Your task to perform on an android device: Go to Amazon Image 0: 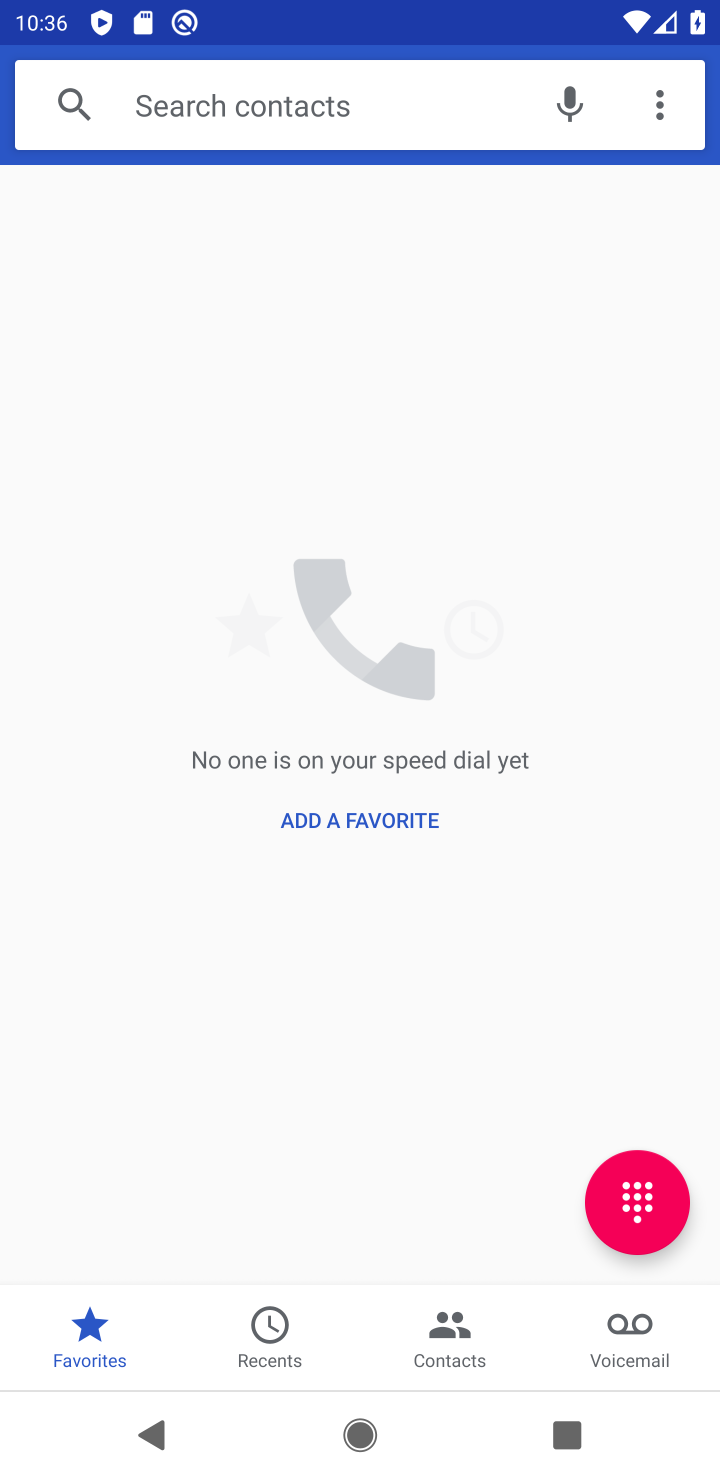
Step 0: press home button
Your task to perform on an android device: Go to Amazon Image 1: 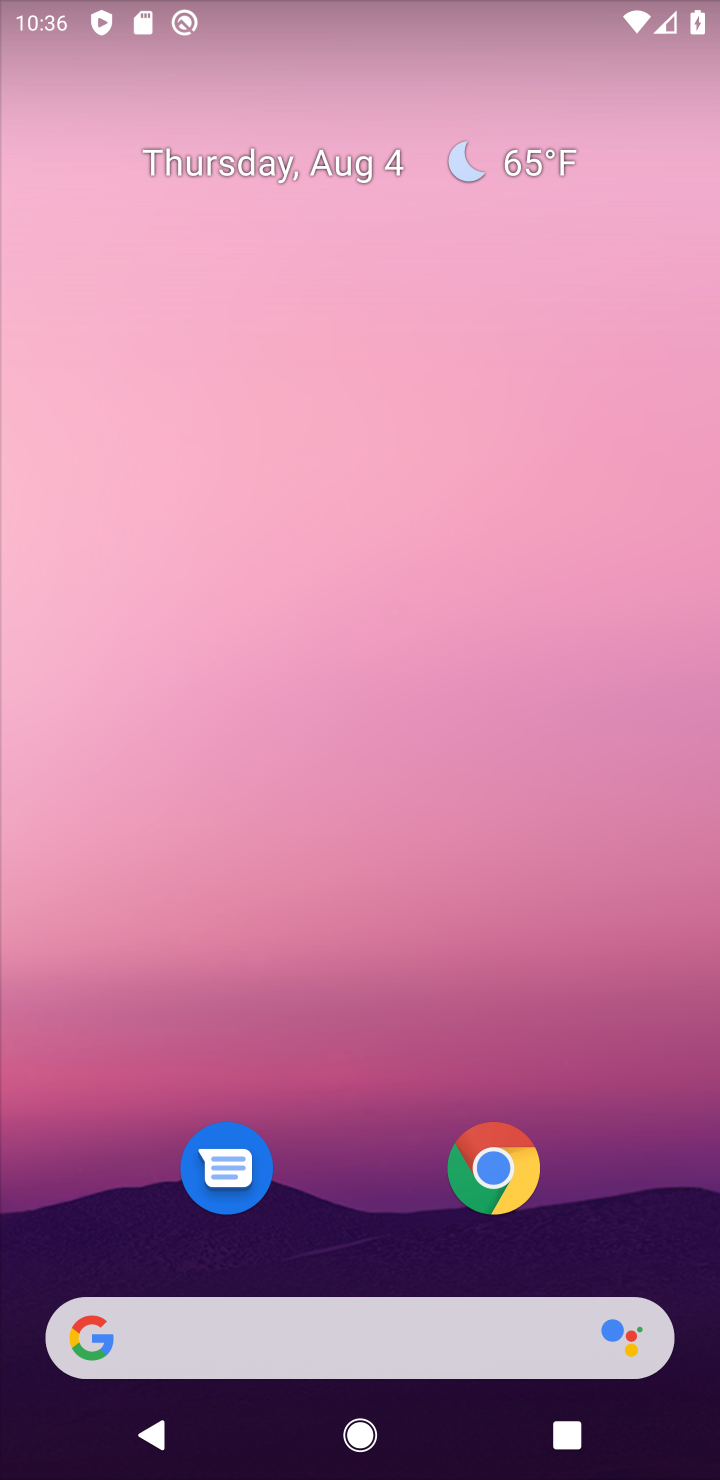
Step 1: drag from (644, 1142) to (483, 30)
Your task to perform on an android device: Go to Amazon Image 2: 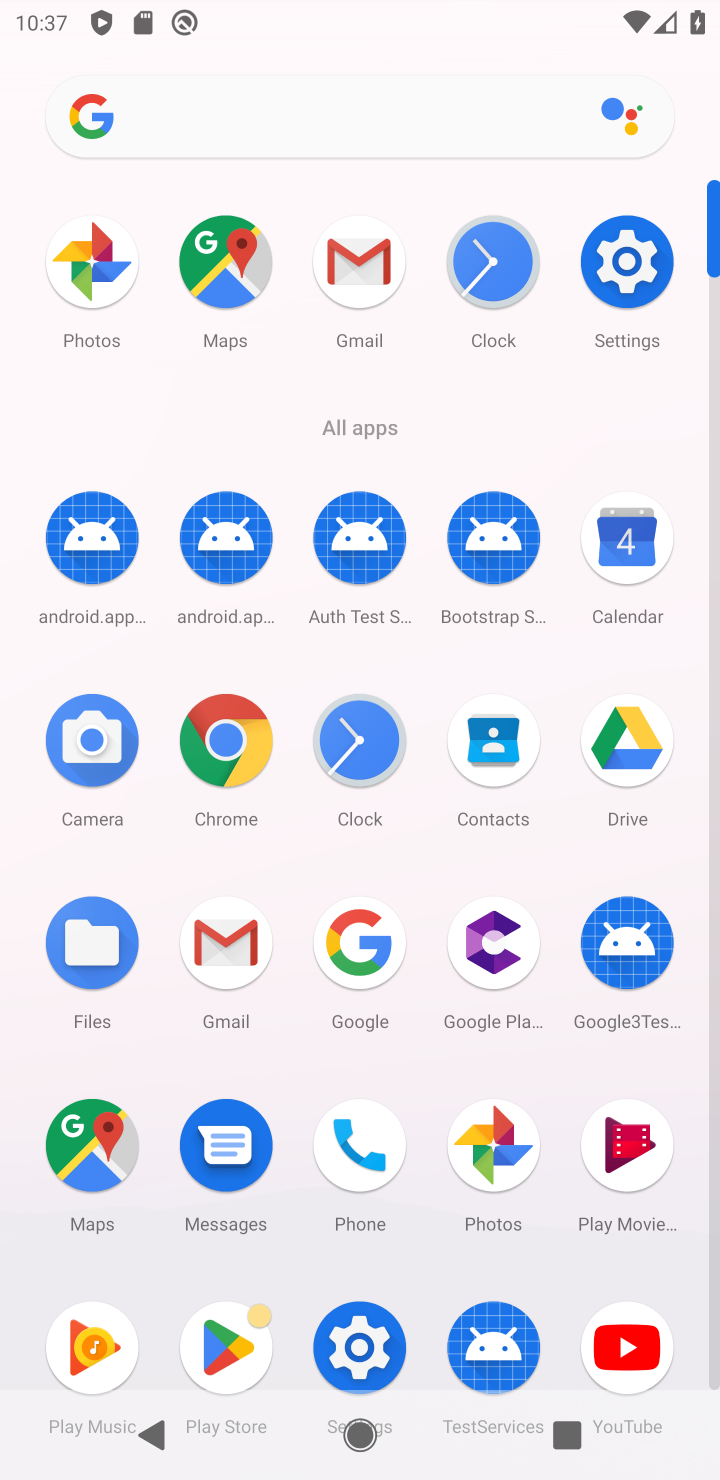
Step 2: click (368, 927)
Your task to perform on an android device: Go to Amazon Image 3: 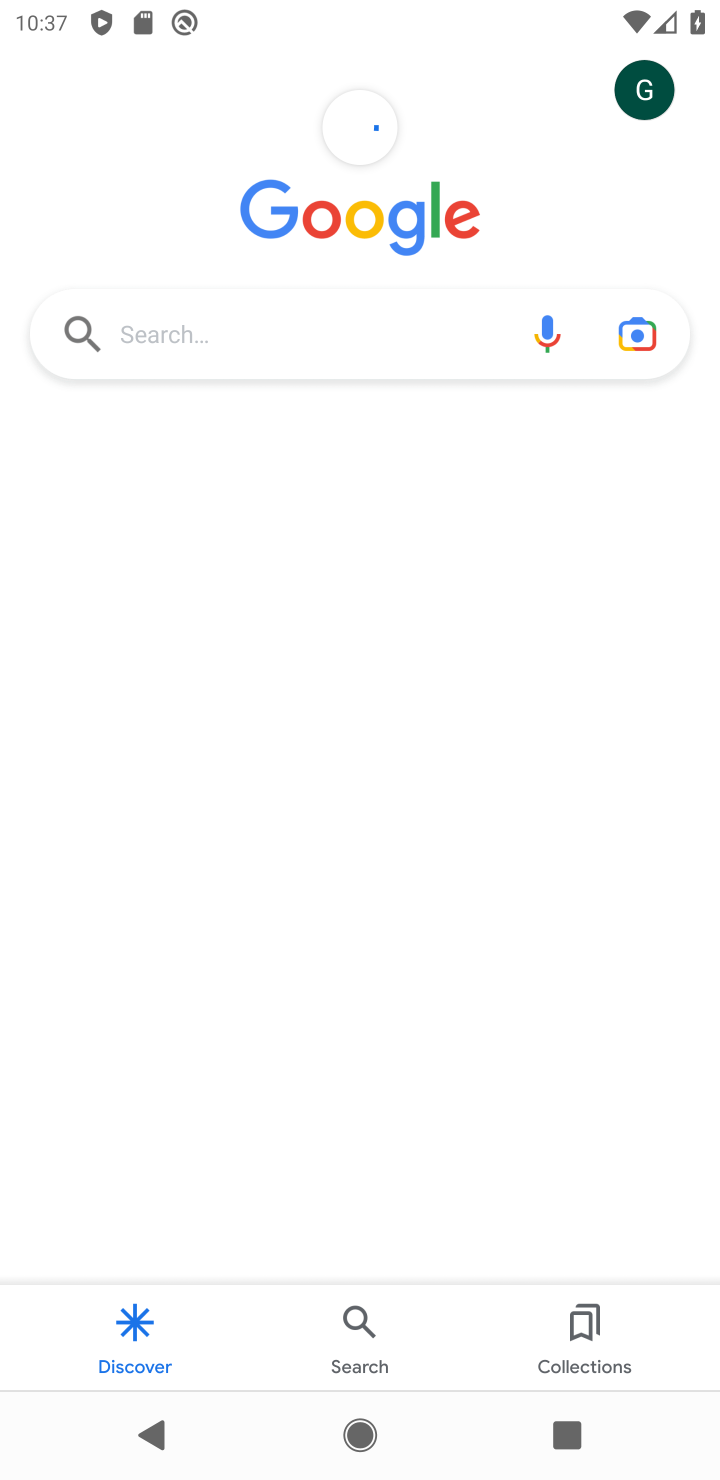
Step 3: click (254, 361)
Your task to perform on an android device: Go to Amazon Image 4: 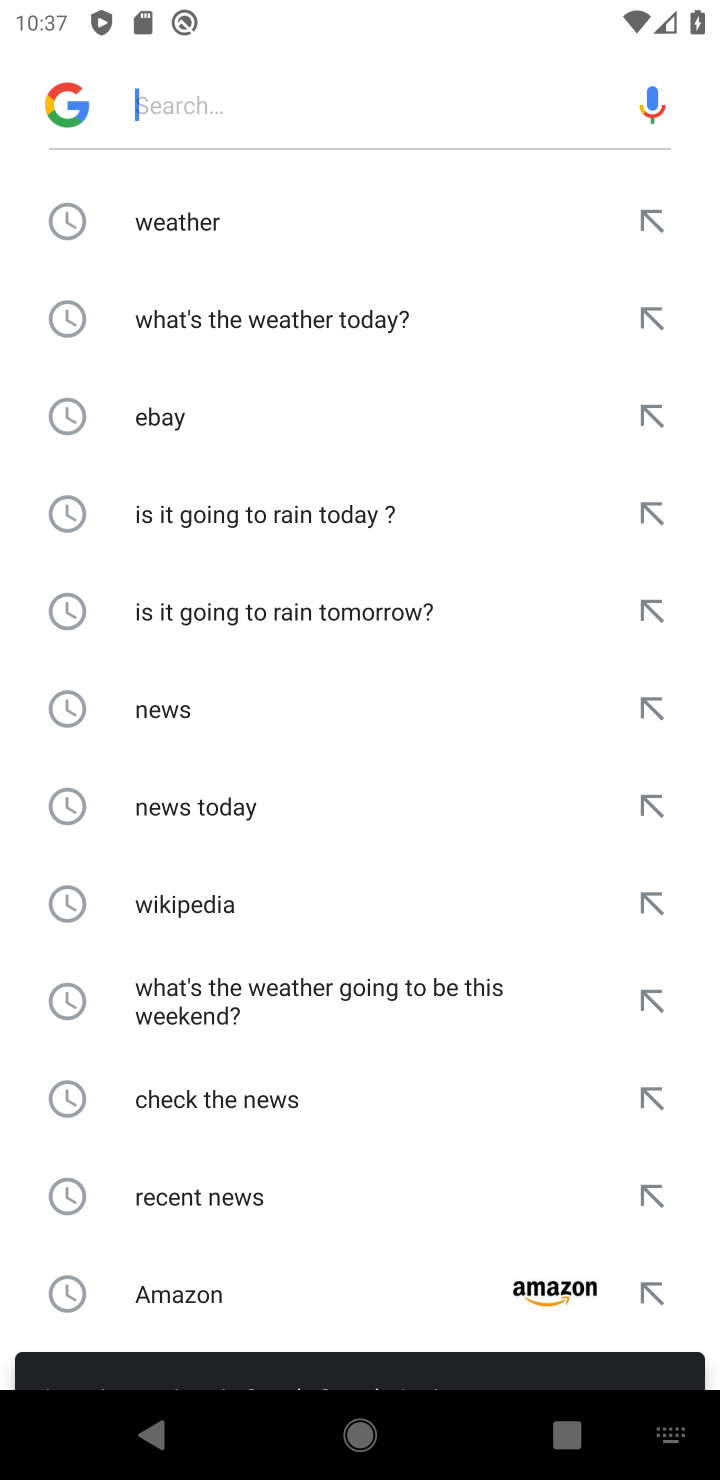
Step 4: click (192, 1300)
Your task to perform on an android device: Go to Amazon Image 5: 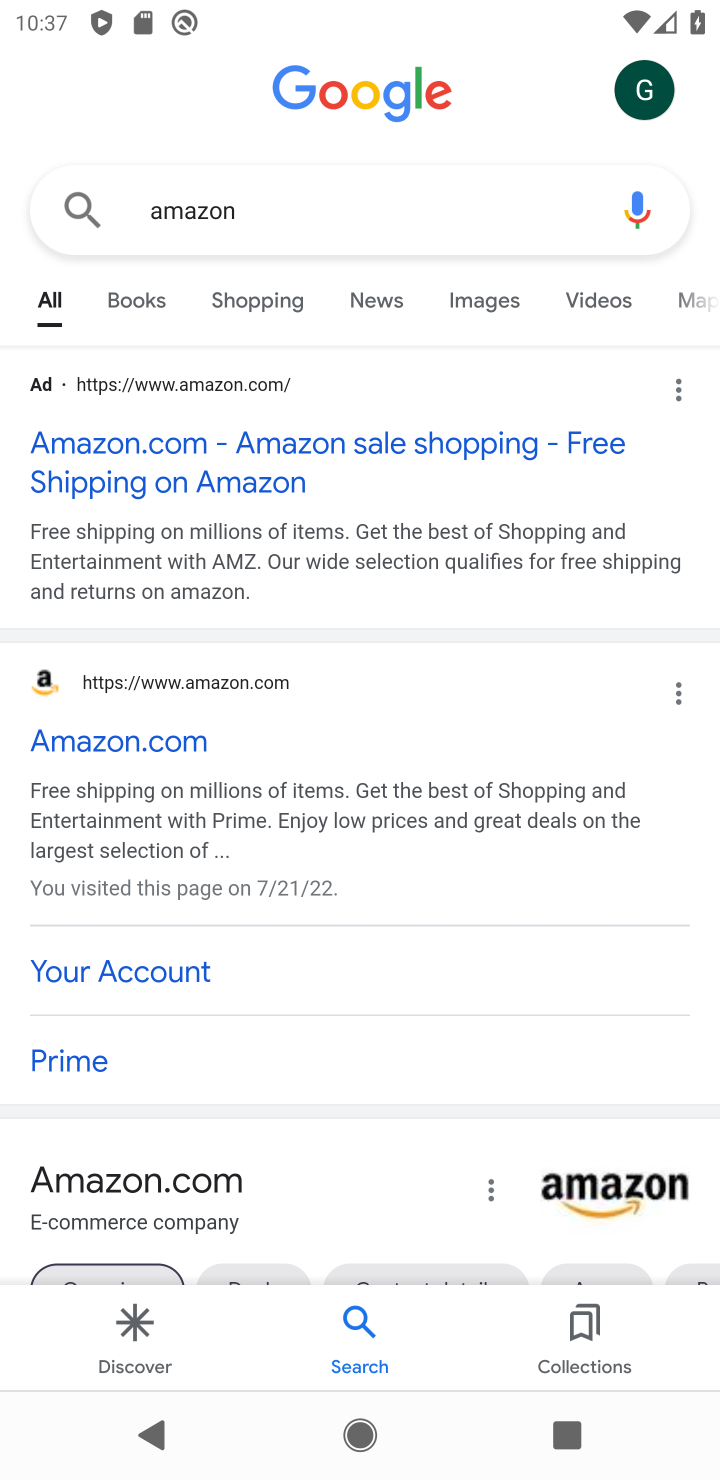
Step 5: task complete